Your task to perform on an android device: change alarm snooze length Image 0: 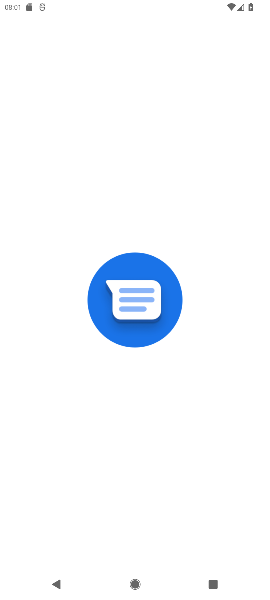
Step 0: press home button
Your task to perform on an android device: change alarm snooze length Image 1: 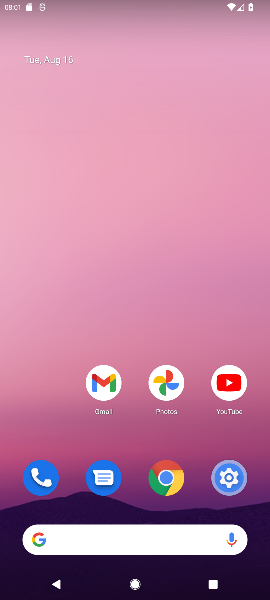
Step 1: drag from (131, 456) to (139, 3)
Your task to perform on an android device: change alarm snooze length Image 2: 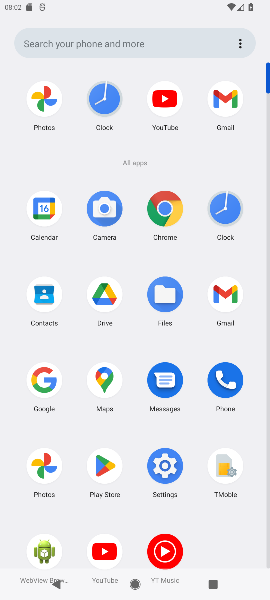
Step 2: click (226, 206)
Your task to perform on an android device: change alarm snooze length Image 3: 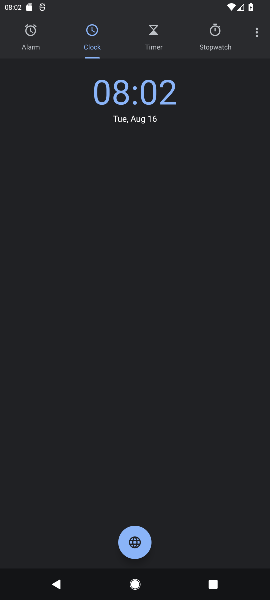
Step 3: click (256, 32)
Your task to perform on an android device: change alarm snooze length Image 4: 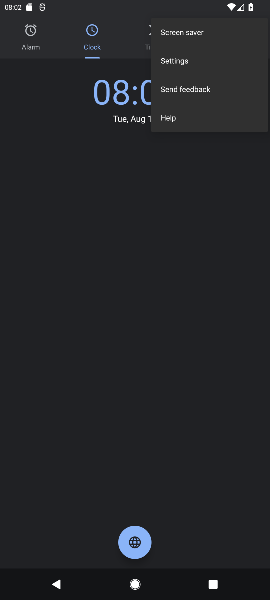
Step 4: click (193, 64)
Your task to perform on an android device: change alarm snooze length Image 5: 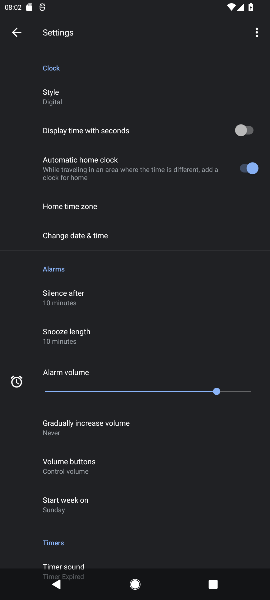
Step 5: click (99, 338)
Your task to perform on an android device: change alarm snooze length Image 6: 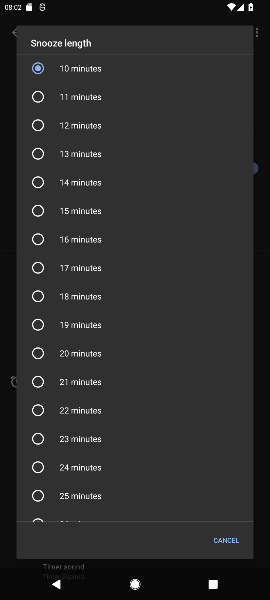
Step 6: drag from (54, 113) to (84, 435)
Your task to perform on an android device: change alarm snooze length Image 7: 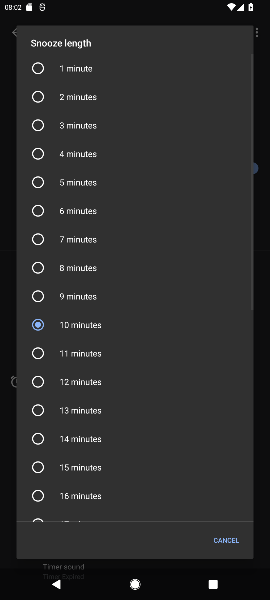
Step 7: click (42, 182)
Your task to perform on an android device: change alarm snooze length Image 8: 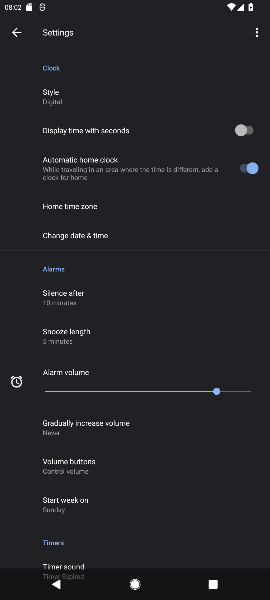
Step 8: task complete